Your task to perform on an android device: refresh tabs in the chrome app Image 0: 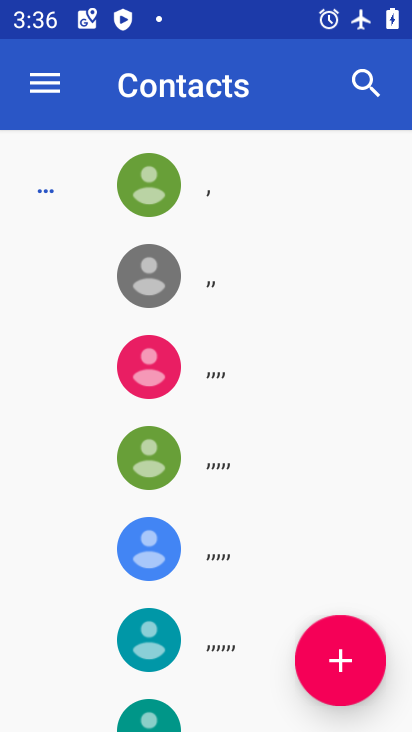
Step 0: press home button
Your task to perform on an android device: refresh tabs in the chrome app Image 1: 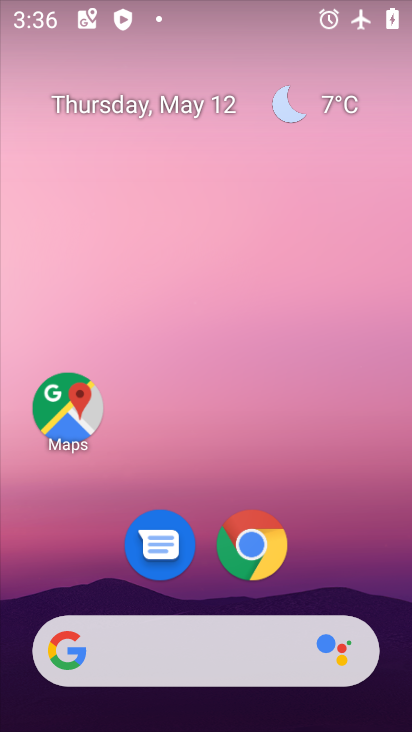
Step 1: click (246, 552)
Your task to perform on an android device: refresh tabs in the chrome app Image 2: 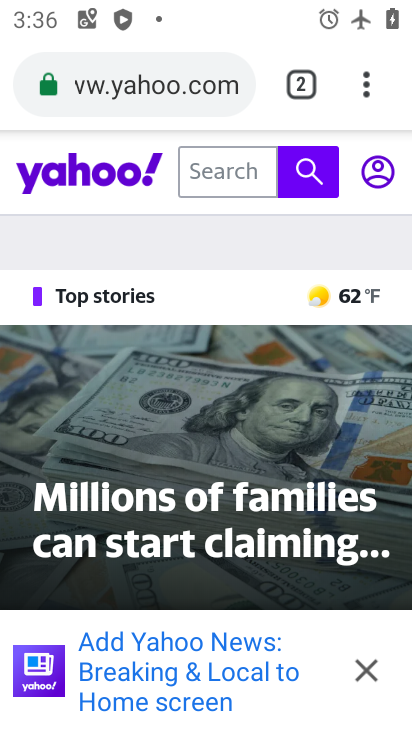
Step 2: click (366, 89)
Your task to perform on an android device: refresh tabs in the chrome app Image 3: 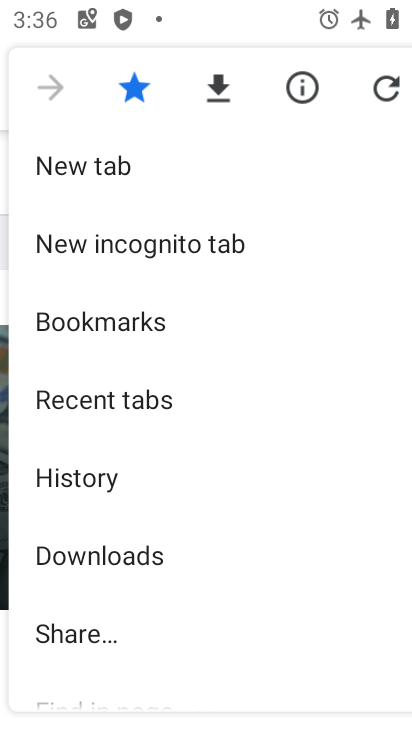
Step 3: click (379, 87)
Your task to perform on an android device: refresh tabs in the chrome app Image 4: 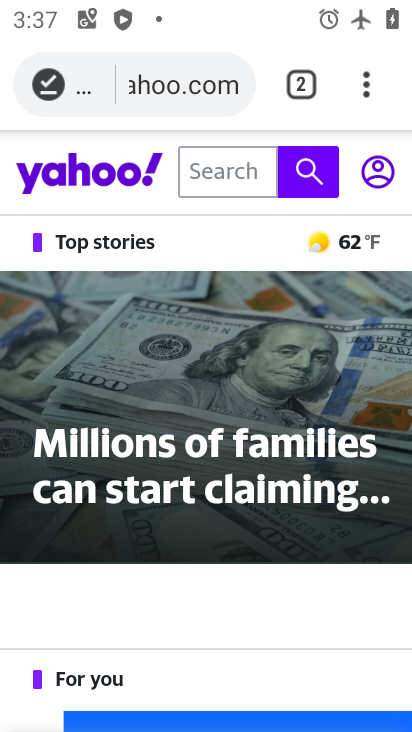
Step 4: task complete